Your task to perform on an android device: Is it going to rain this weekend? Image 0: 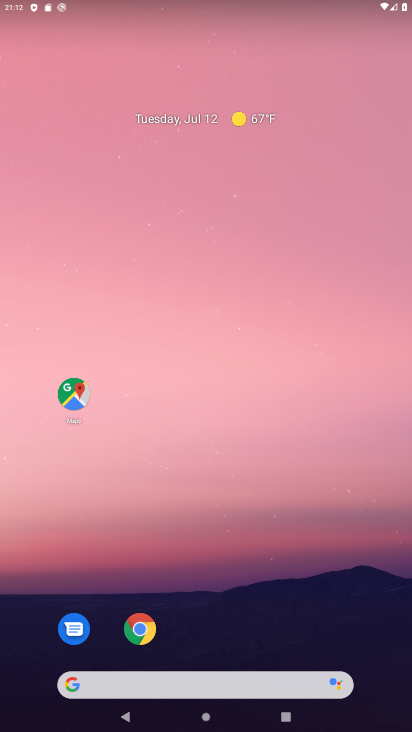
Step 0: click (162, 696)
Your task to perform on an android device: Is it going to rain this weekend? Image 1: 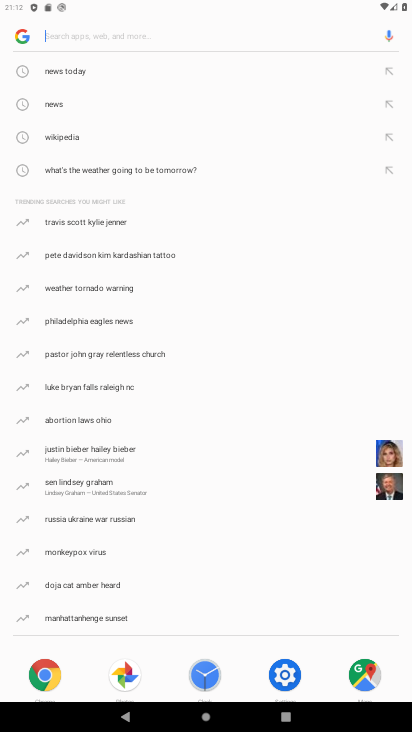
Step 1: type "Is it going to rain this weekend?"
Your task to perform on an android device: Is it going to rain this weekend? Image 2: 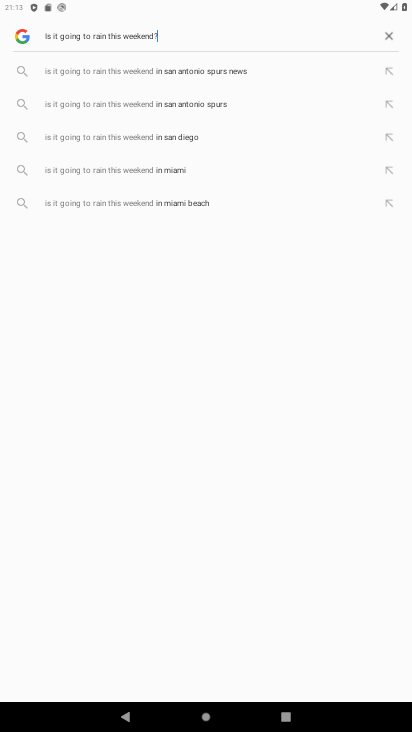
Step 2: press enter
Your task to perform on an android device: Is it going to rain this weekend? Image 3: 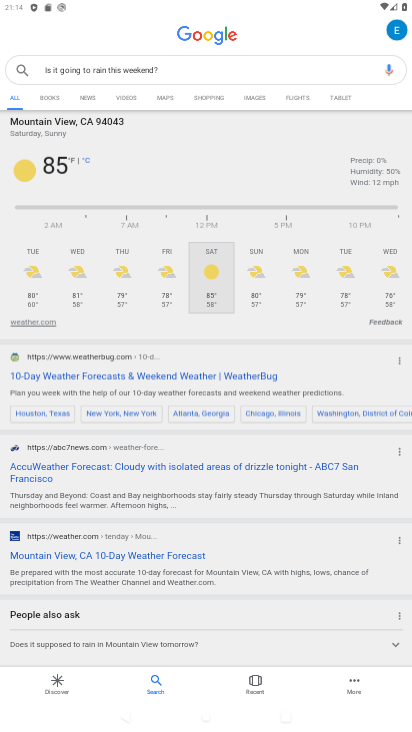
Step 3: task complete